Your task to perform on an android device: Go to sound settings Image 0: 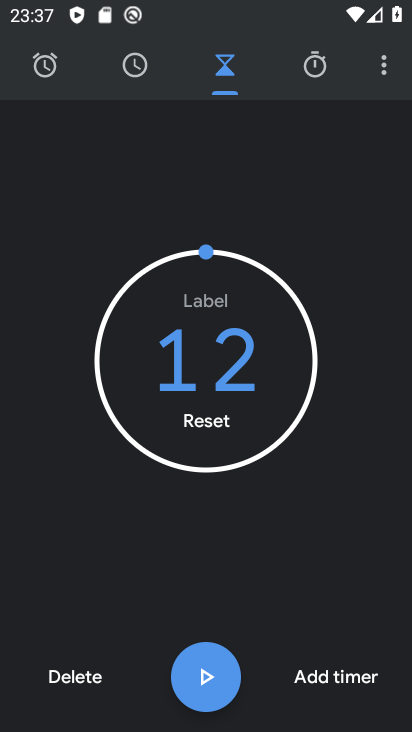
Step 0: press home button
Your task to perform on an android device: Go to sound settings Image 1: 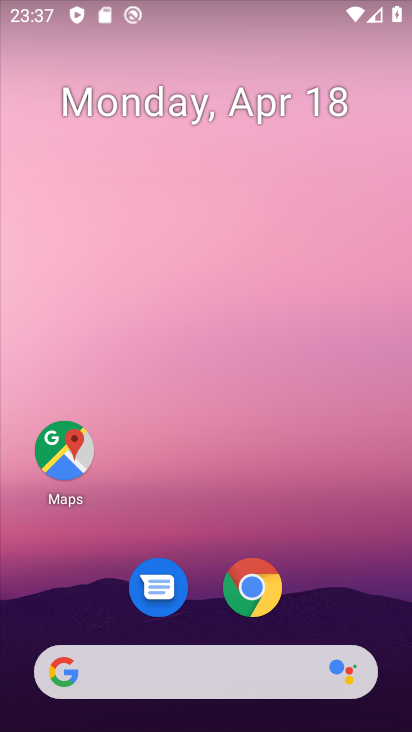
Step 1: drag from (370, 463) to (361, 57)
Your task to perform on an android device: Go to sound settings Image 2: 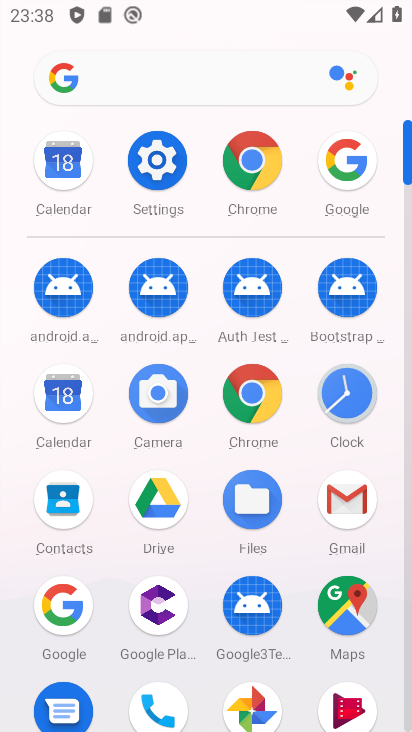
Step 2: click (155, 164)
Your task to perform on an android device: Go to sound settings Image 3: 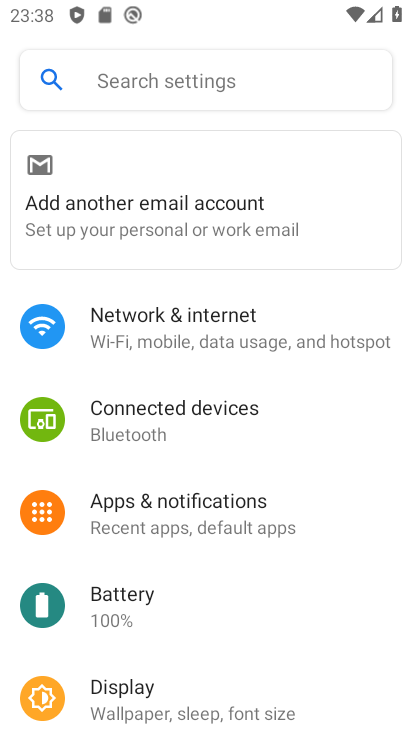
Step 3: drag from (231, 634) to (264, 322)
Your task to perform on an android device: Go to sound settings Image 4: 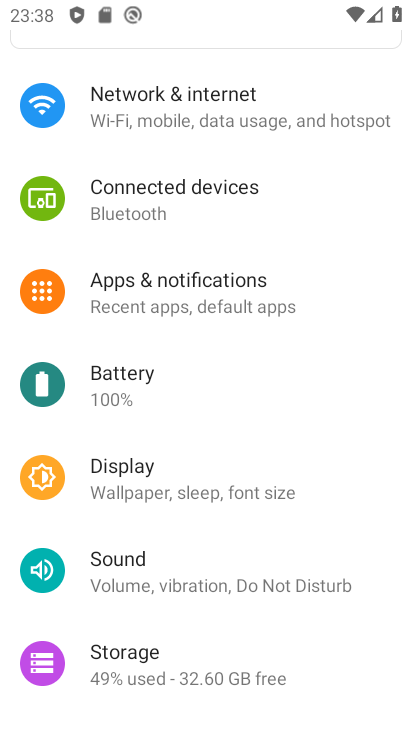
Step 4: click (200, 580)
Your task to perform on an android device: Go to sound settings Image 5: 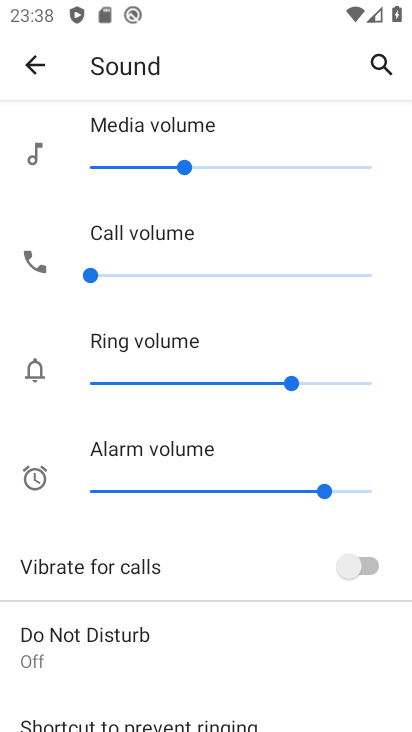
Step 5: task complete